Your task to perform on an android device: toggle pop-ups in chrome Image 0: 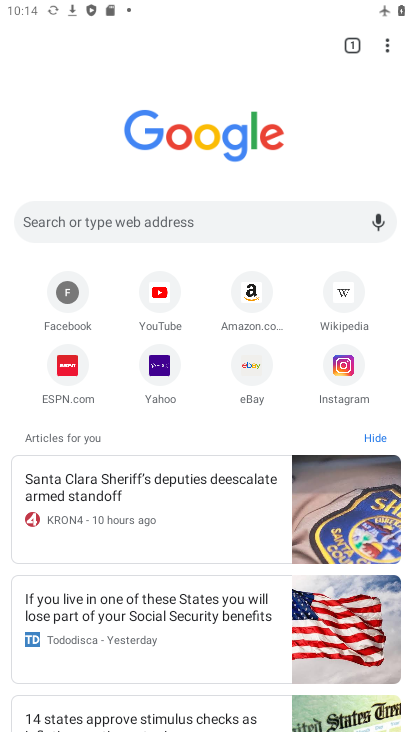
Step 0: click (390, 51)
Your task to perform on an android device: toggle pop-ups in chrome Image 1: 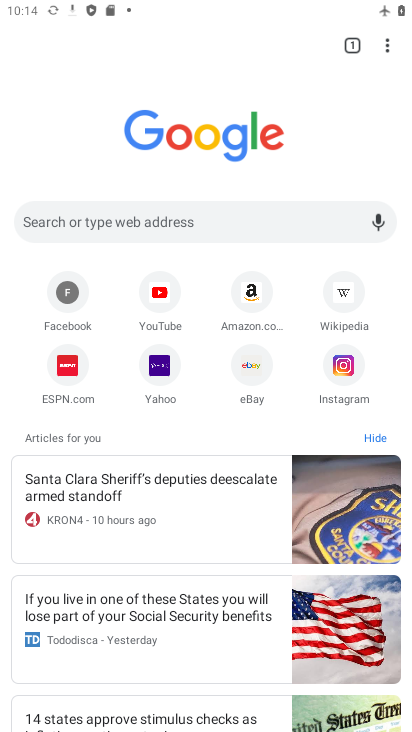
Step 1: click (390, 51)
Your task to perform on an android device: toggle pop-ups in chrome Image 2: 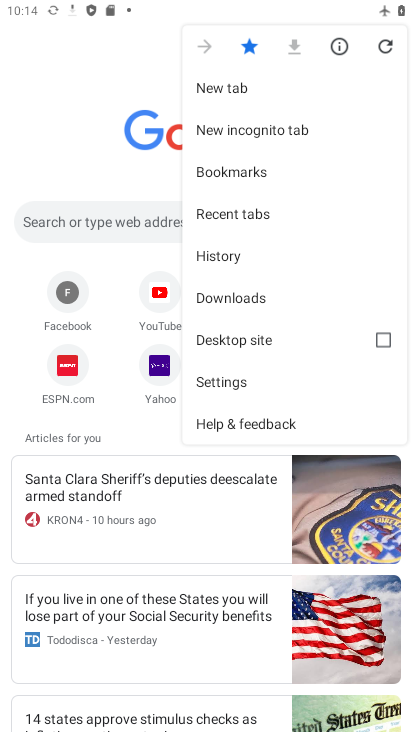
Step 2: click (225, 379)
Your task to perform on an android device: toggle pop-ups in chrome Image 3: 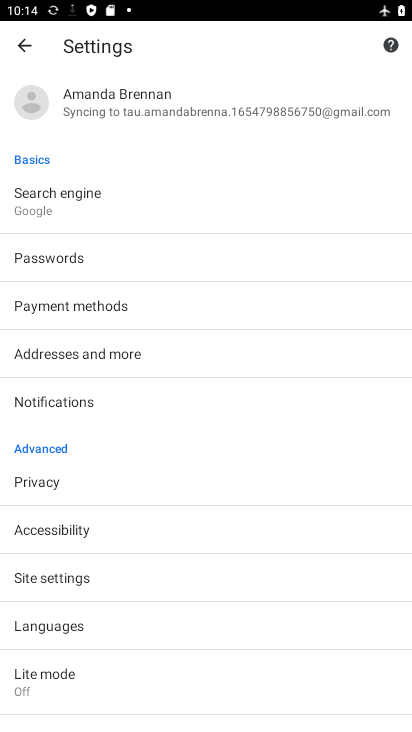
Step 3: click (71, 583)
Your task to perform on an android device: toggle pop-ups in chrome Image 4: 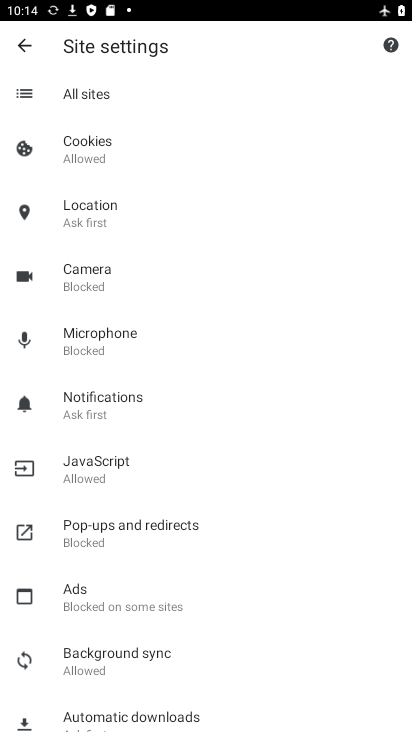
Step 4: click (146, 538)
Your task to perform on an android device: toggle pop-ups in chrome Image 5: 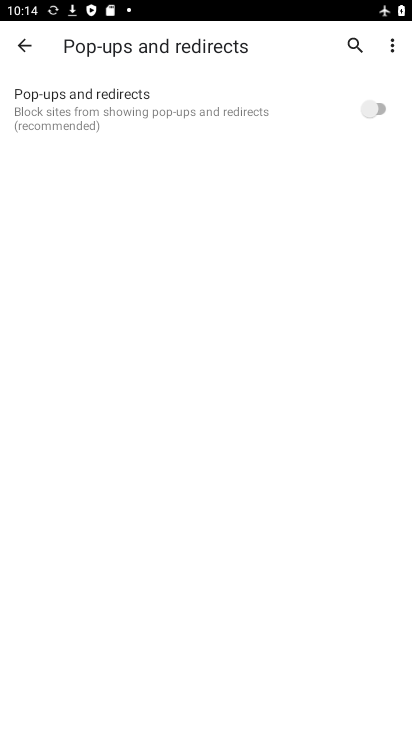
Step 5: click (382, 120)
Your task to perform on an android device: toggle pop-ups in chrome Image 6: 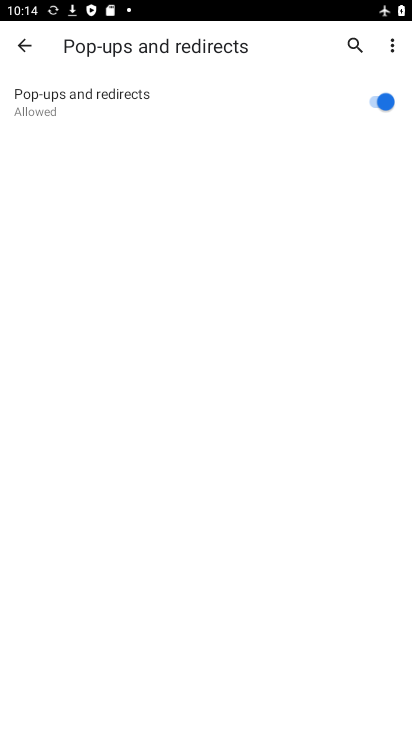
Step 6: task complete